Your task to perform on an android device: find photos in the google photos app Image 0: 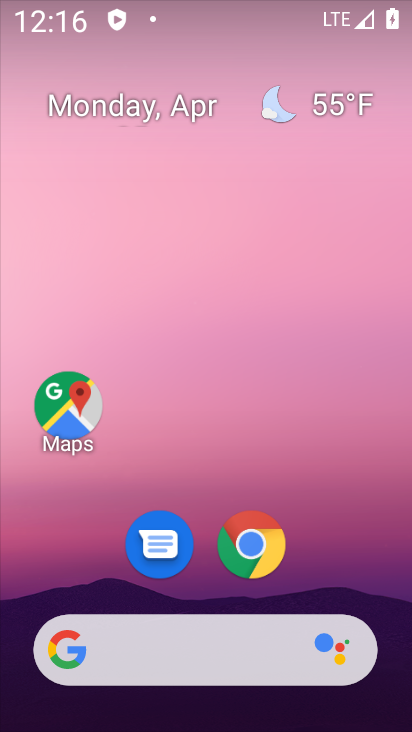
Step 0: drag from (342, 549) to (86, 79)
Your task to perform on an android device: find photos in the google photos app Image 1: 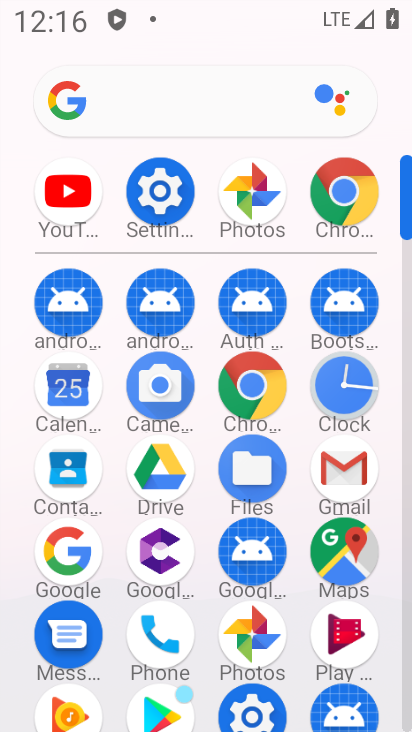
Step 1: click (250, 623)
Your task to perform on an android device: find photos in the google photos app Image 2: 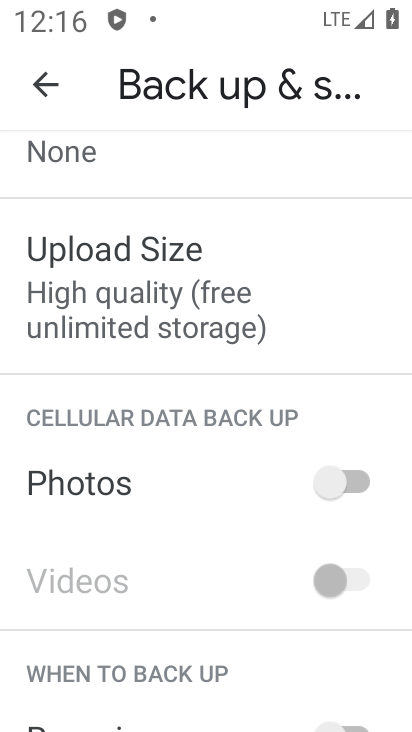
Step 2: task complete